Your task to perform on an android device: turn on showing notifications on the lock screen Image 0: 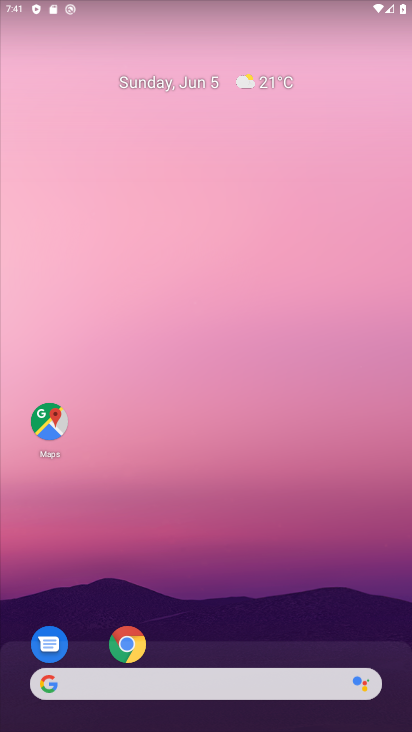
Step 0: drag from (229, 639) to (277, 56)
Your task to perform on an android device: turn on showing notifications on the lock screen Image 1: 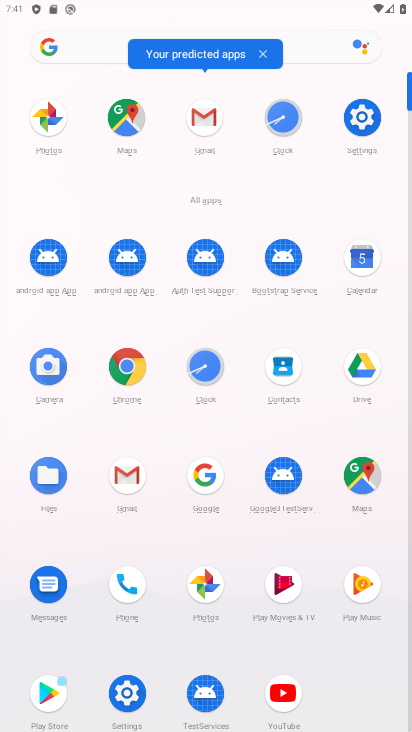
Step 1: click (349, 115)
Your task to perform on an android device: turn on showing notifications on the lock screen Image 2: 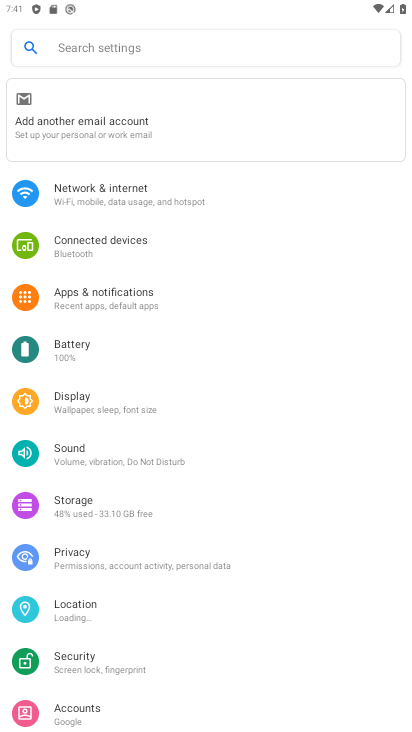
Step 2: click (131, 301)
Your task to perform on an android device: turn on showing notifications on the lock screen Image 3: 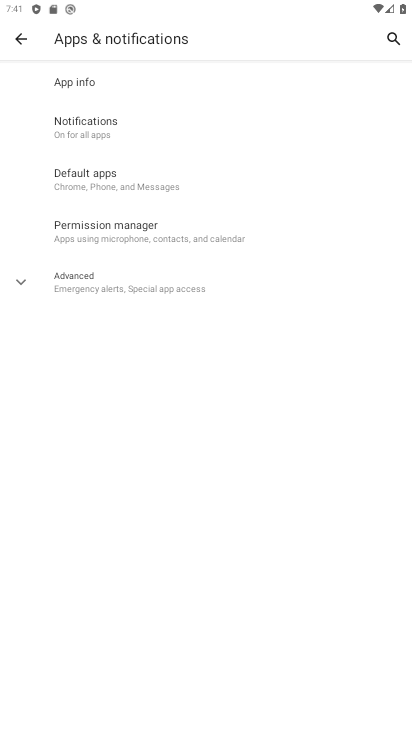
Step 3: click (164, 259)
Your task to perform on an android device: turn on showing notifications on the lock screen Image 4: 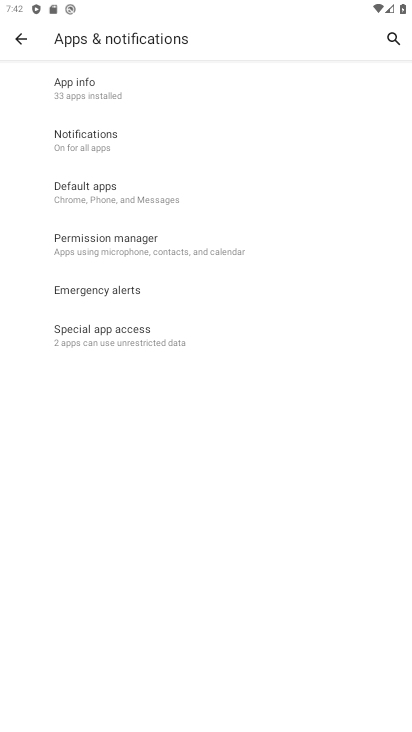
Step 4: click (63, 143)
Your task to perform on an android device: turn on showing notifications on the lock screen Image 5: 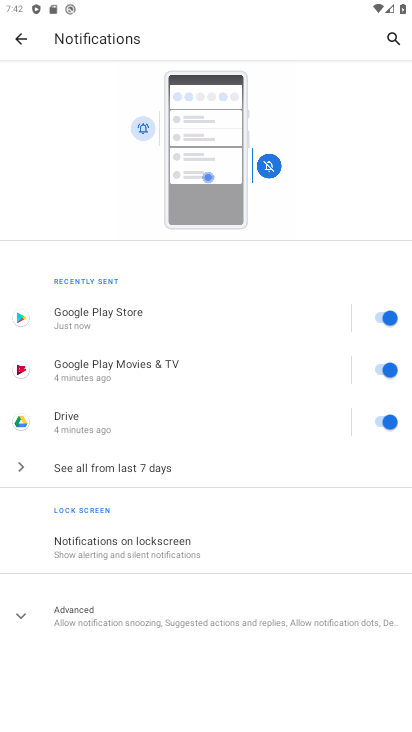
Step 5: click (158, 545)
Your task to perform on an android device: turn on showing notifications on the lock screen Image 6: 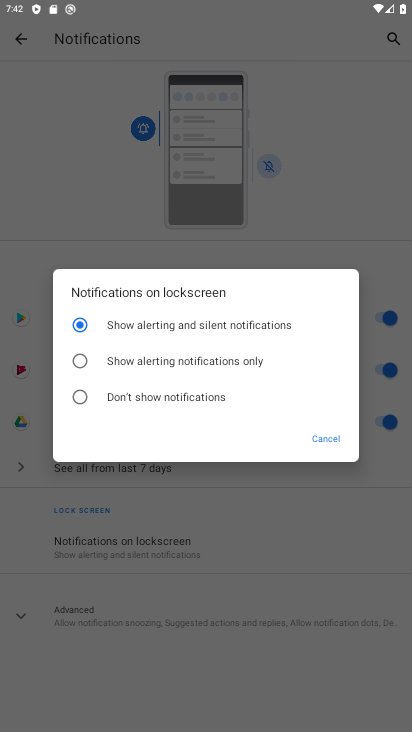
Step 6: click (236, 322)
Your task to perform on an android device: turn on showing notifications on the lock screen Image 7: 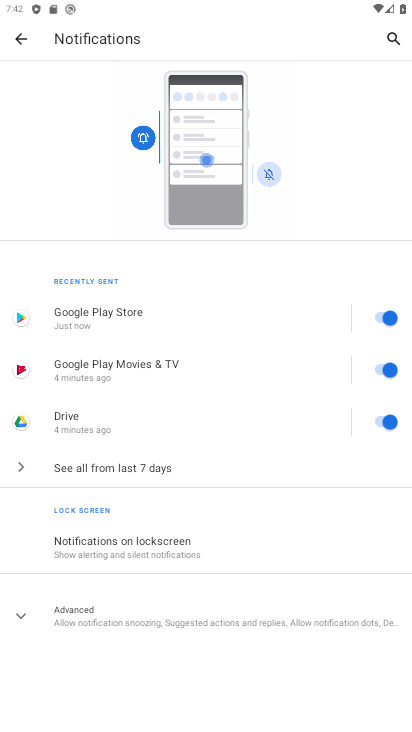
Step 7: task complete